Your task to perform on an android device: Open the calendar app, open the side menu, and click the "Day" option Image 0: 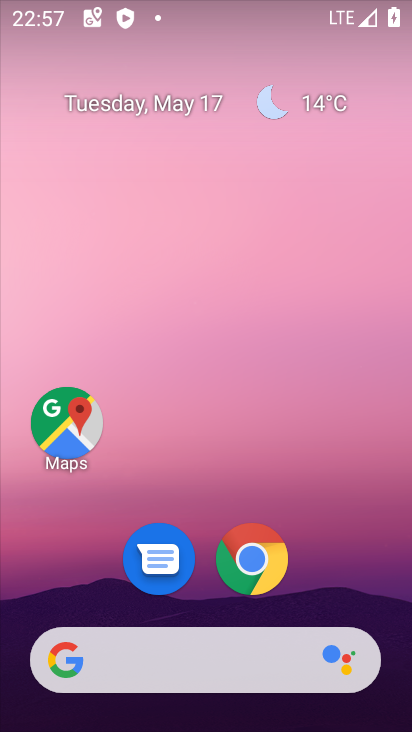
Step 0: drag from (361, 535) to (355, 150)
Your task to perform on an android device: Open the calendar app, open the side menu, and click the "Day" option Image 1: 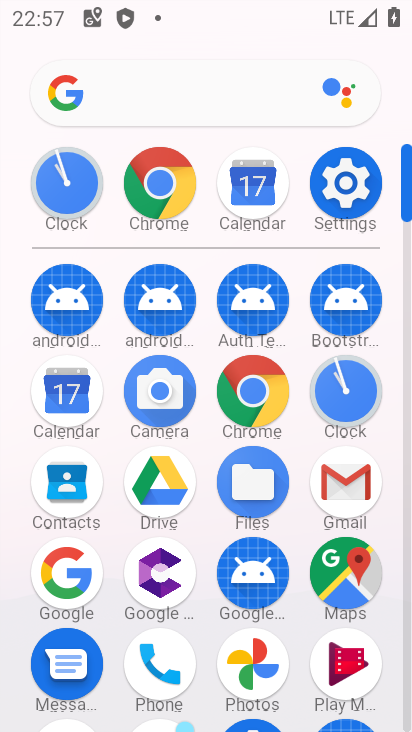
Step 1: click (77, 403)
Your task to perform on an android device: Open the calendar app, open the side menu, and click the "Day" option Image 2: 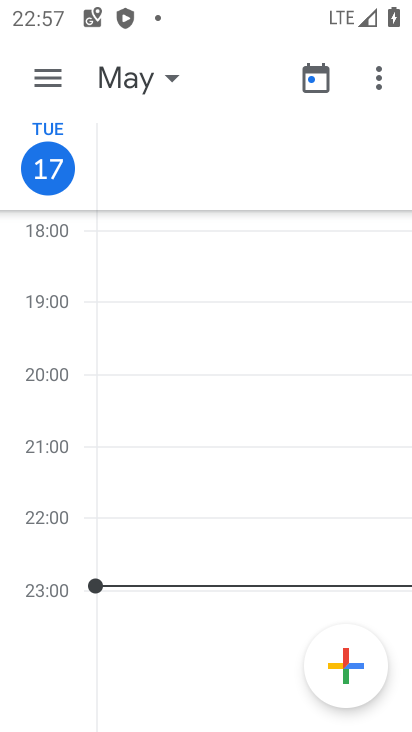
Step 2: click (58, 81)
Your task to perform on an android device: Open the calendar app, open the side menu, and click the "Day" option Image 3: 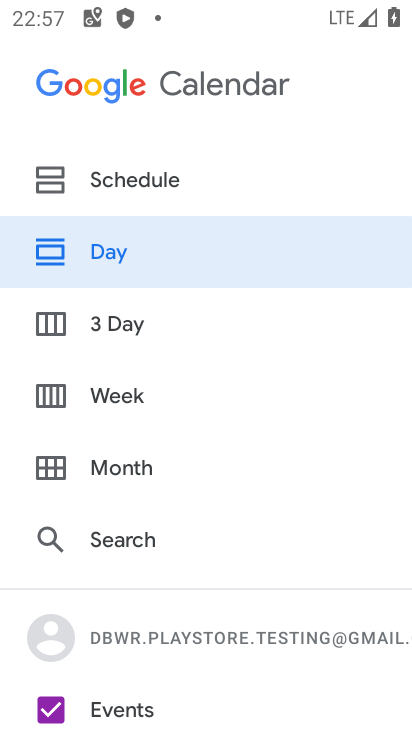
Step 3: click (116, 267)
Your task to perform on an android device: Open the calendar app, open the side menu, and click the "Day" option Image 4: 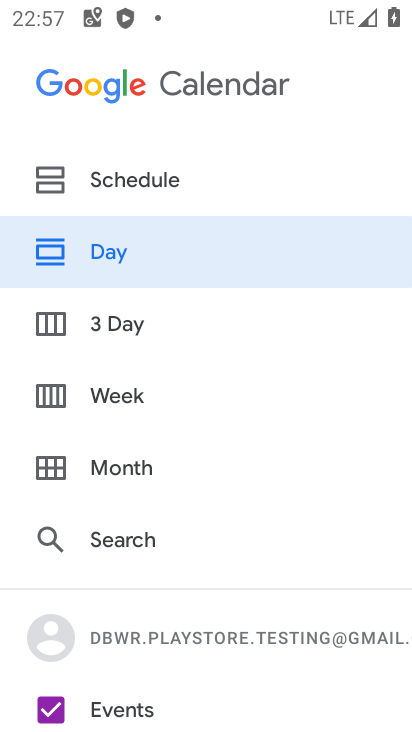
Step 4: click (119, 259)
Your task to perform on an android device: Open the calendar app, open the side menu, and click the "Day" option Image 5: 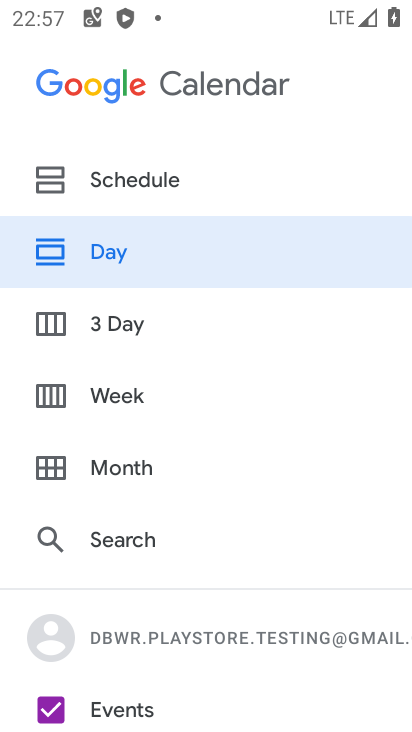
Step 5: click (87, 251)
Your task to perform on an android device: Open the calendar app, open the side menu, and click the "Day" option Image 6: 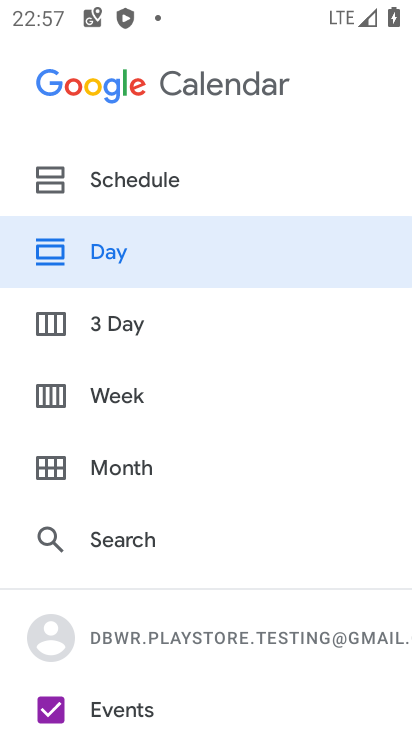
Step 6: click (103, 250)
Your task to perform on an android device: Open the calendar app, open the side menu, and click the "Day" option Image 7: 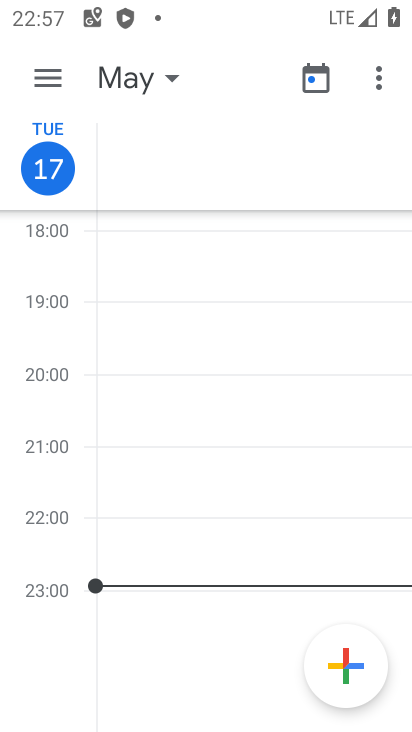
Step 7: click (180, 251)
Your task to perform on an android device: Open the calendar app, open the side menu, and click the "Day" option Image 8: 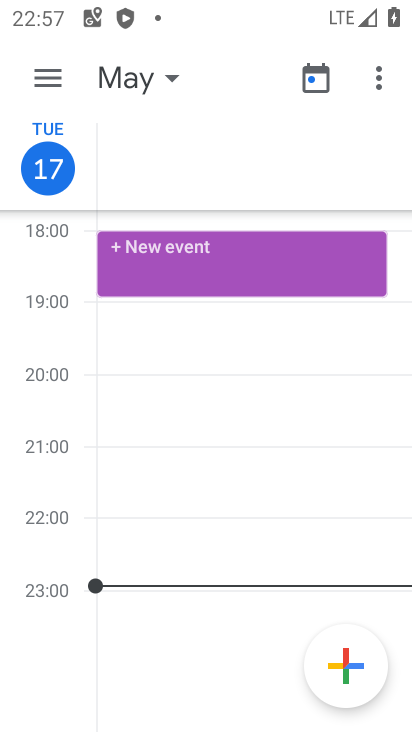
Step 8: click (165, 152)
Your task to perform on an android device: Open the calendar app, open the side menu, and click the "Day" option Image 9: 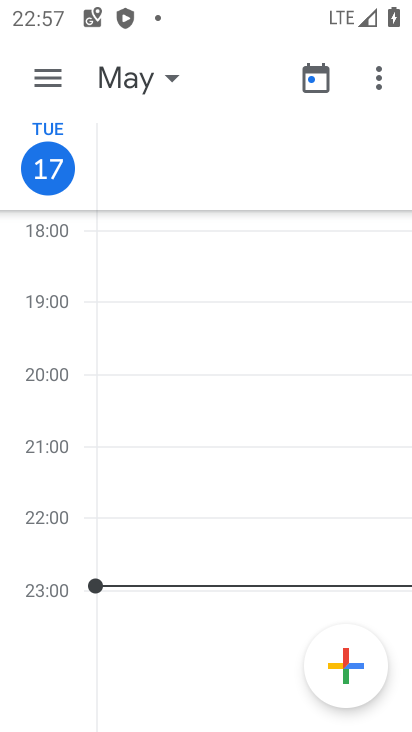
Step 9: task complete